Your task to perform on an android device: turn off picture-in-picture Image 0: 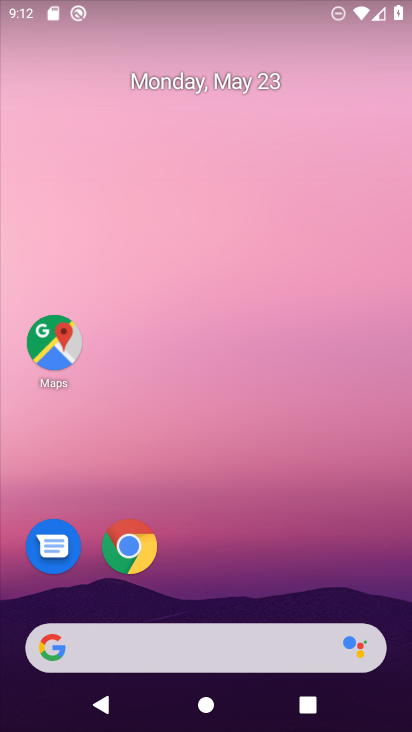
Step 0: click (132, 540)
Your task to perform on an android device: turn off picture-in-picture Image 1: 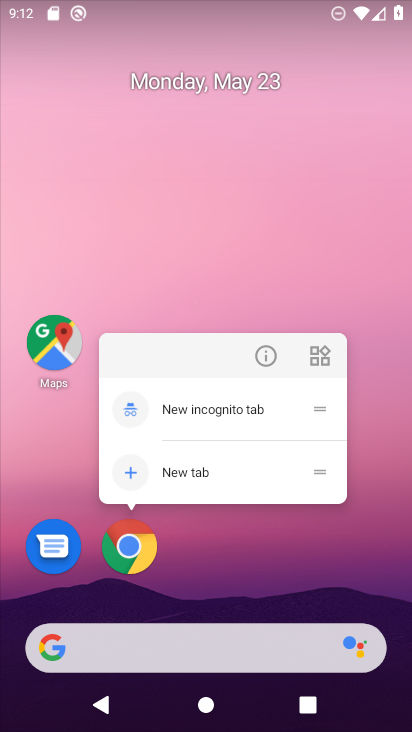
Step 1: click (265, 362)
Your task to perform on an android device: turn off picture-in-picture Image 2: 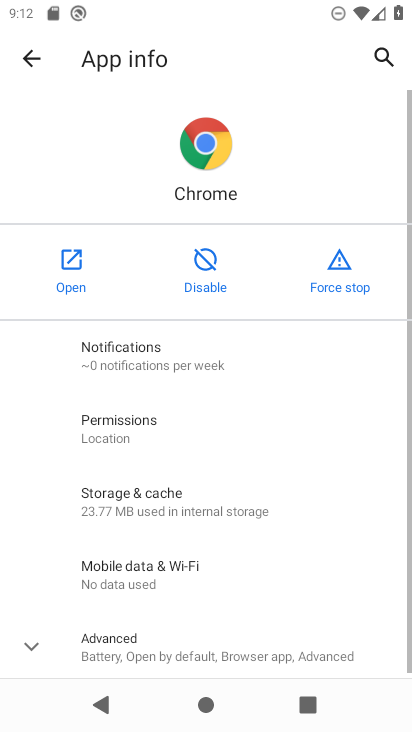
Step 2: drag from (277, 547) to (323, 52)
Your task to perform on an android device: turn off picture-in-picture Image 3: 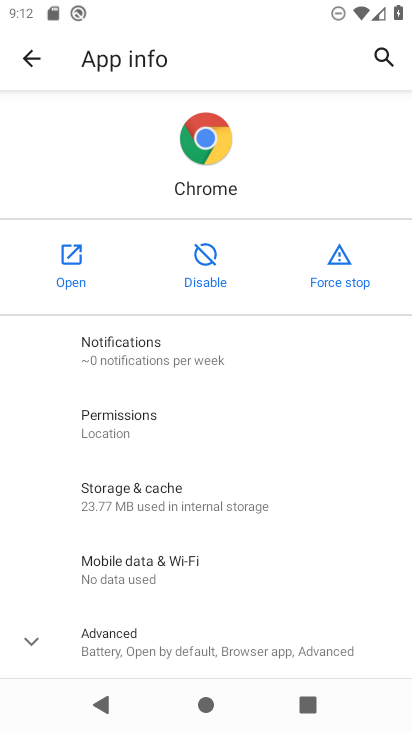
Step 3: click (172, 646)
Your task to perform on an android device: turn off picture-in-picture Image 4: 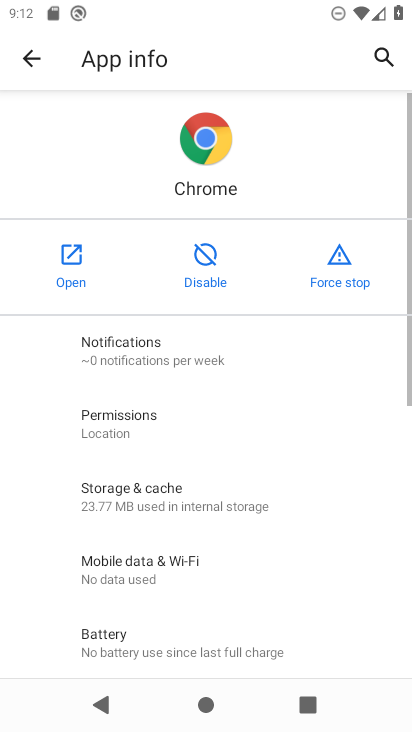
Step 4: drag from (172, 643) to (263, 195)
Your task to perform on an android device: turn off picture-in-picture Image 5: 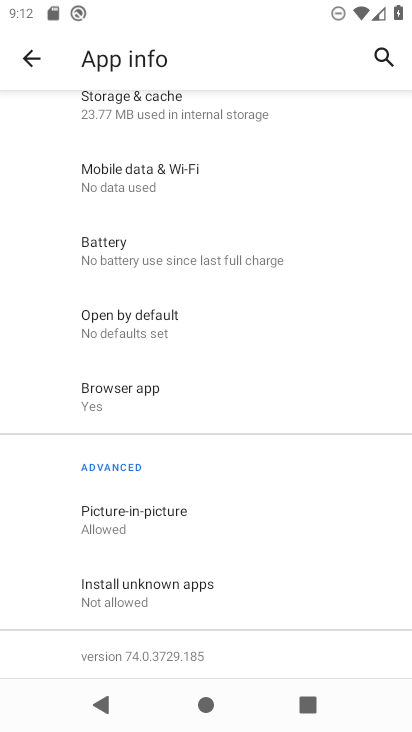
Step 5: click (160, 513)
Your task to perform on an android device: turn off picture-in-picture Image 6: 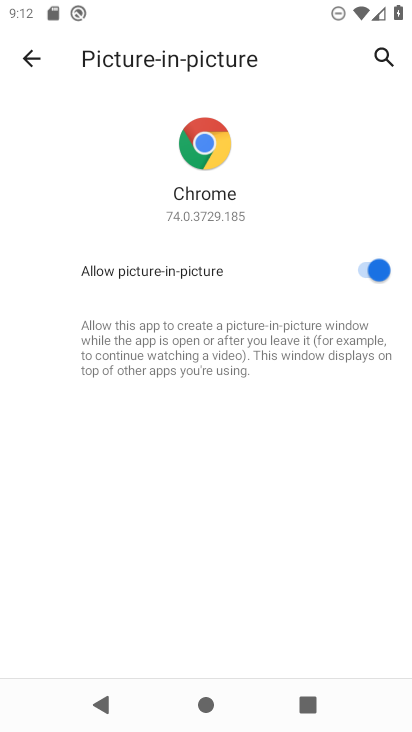
Step 6: click (352, 270)
Your task to perform on an android device: turn off picture-in-picture Image 7: 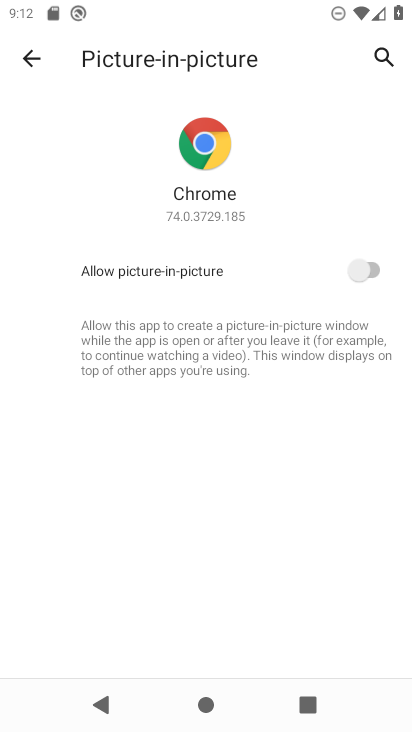
Step 7: task complete